Your task to perform on an android device: turn on javascript in the chrome app Image 0: 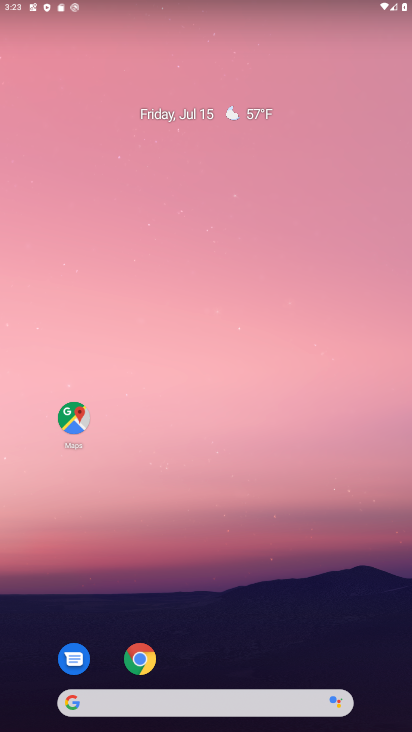
Step 0: click (137, 666)
Your task to perform on an android device: turn on javascript in the chrome app Image 1: 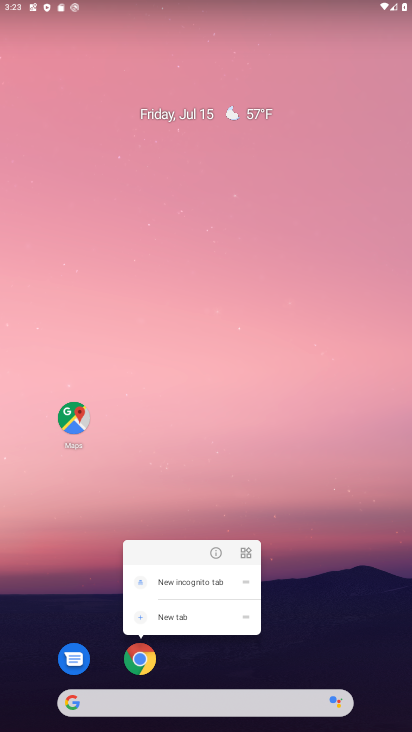
Step 1: click (137, 660)
Your task to perform on an android device: turn on javascript in the chrome app Image 2: 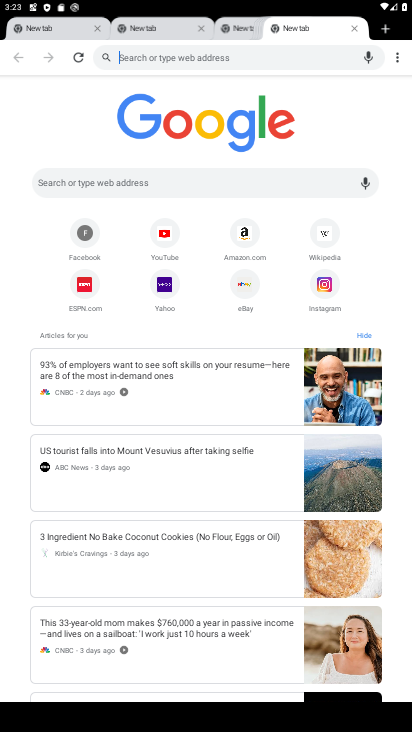
Step 2: click (392, 55)
Your task to perform on an android device: turn on javascript in the chrome app Image 3: 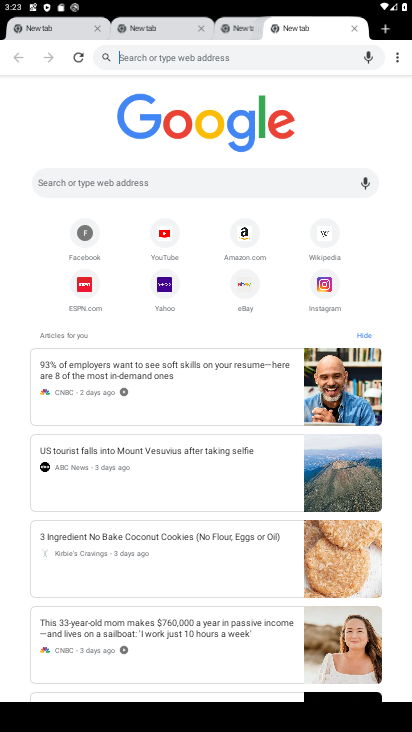
Step 3: click (394, 50)
Your task to perform on an android device: turn on javascript in the chrome app Image 4: 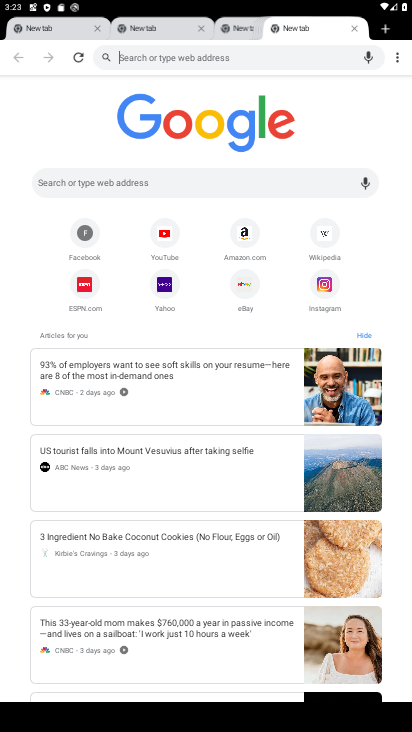
Step 4: task complete